Your task to perform on an android device: Empty the shopping cart on bestbuy.com. Add jbl flip 4 to the cart on bestbuy.com, then select checkout. Image 0: 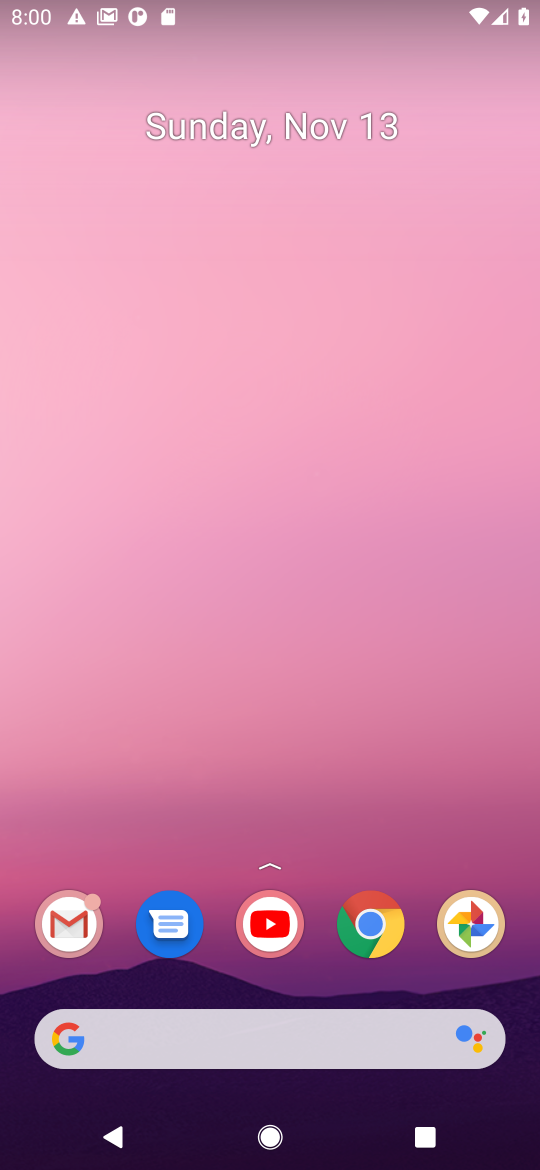
Step 0: click (368, 935)
Your task to perform on an android device: Empty the shopping cart on bestbuy.com. Add jbl flip 4 to the cart on bestbuy.com, then select checkout. Image 1: 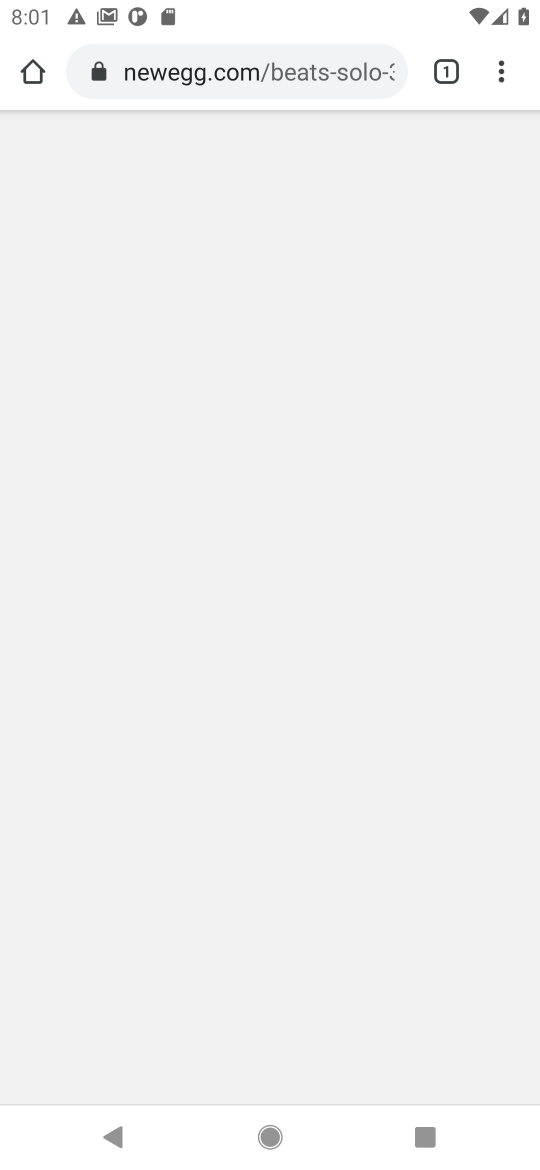
Step 1: click (272, 86)
Your task to perform on an android device: Empty the shopping cart on bestbuy.com. Add jbl flip 4 to the cart on bestbuy.com, then select checkout. Image 2: 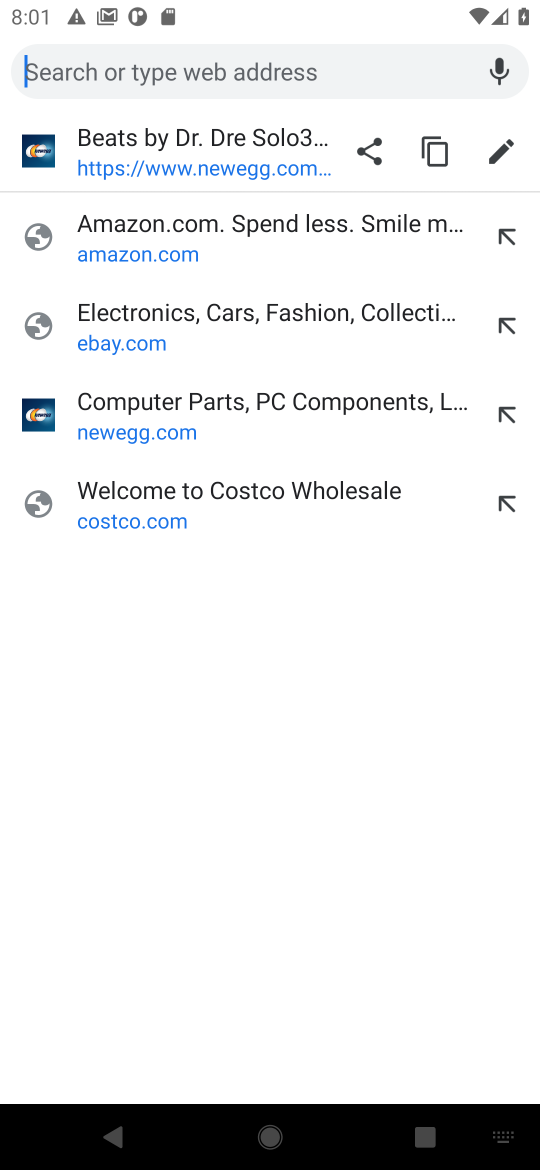
Step 2: type "bestbuy.com"
Your task to perform on an android device: Empty the shopping cart on bestbuy.com. Add jbl flip 4 to the cart on bestbuy.com, then select checkout. Image 3: 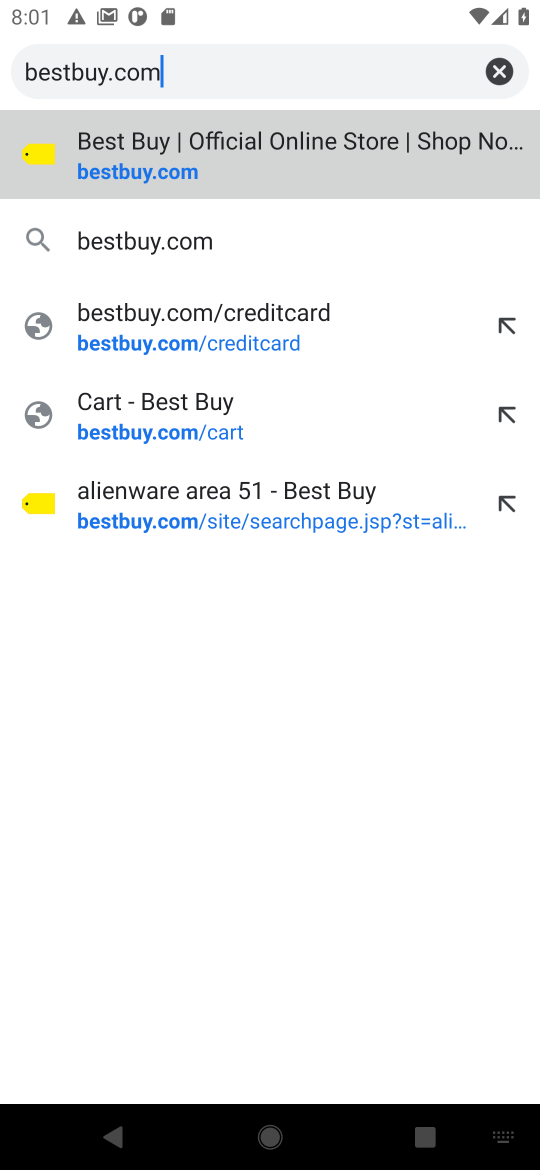
Step 3: click (119, 151)
Your task to perform on an android device: Empty the shopping cart on bestbuy.com. Add jbl flip 4 to the cart on bestbuy.com, then select checkout. Image 4: 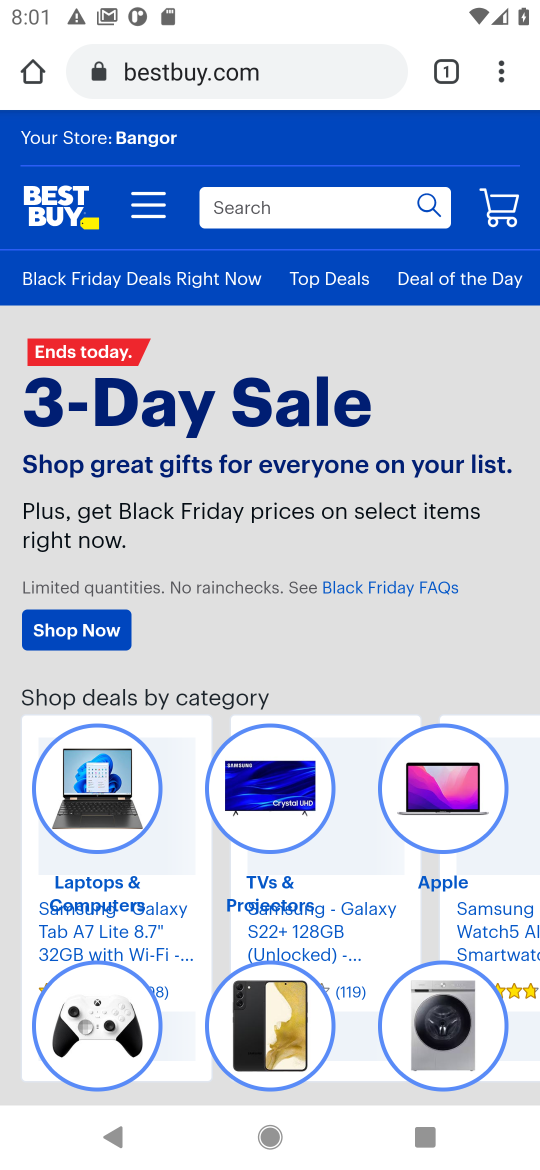
Step 4: click (524, 214)
Your task to perform on an android device: Empty the shopping cart on bestbuy.com. Add jbl flip 4 to the cart on bestbuy.com, then select checkout. Image 5: 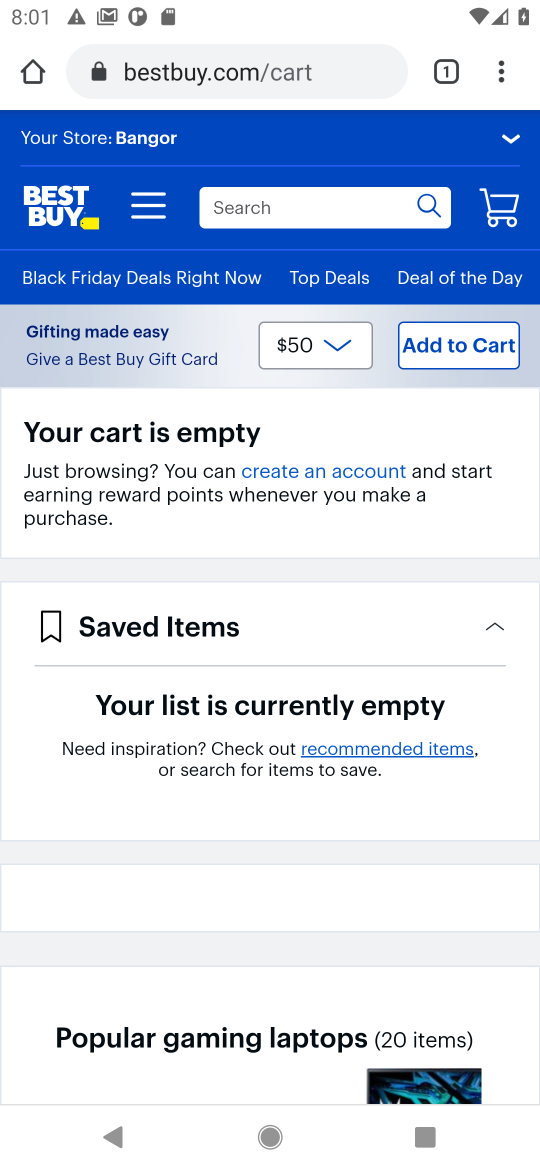
Step 5: click (249, 218)
Your task to perform on an android device: Empty the shopping cart on bestbuy.com. Add jbl flip 4 to the cart on bestbuy.com, then select checkout. Image 6: 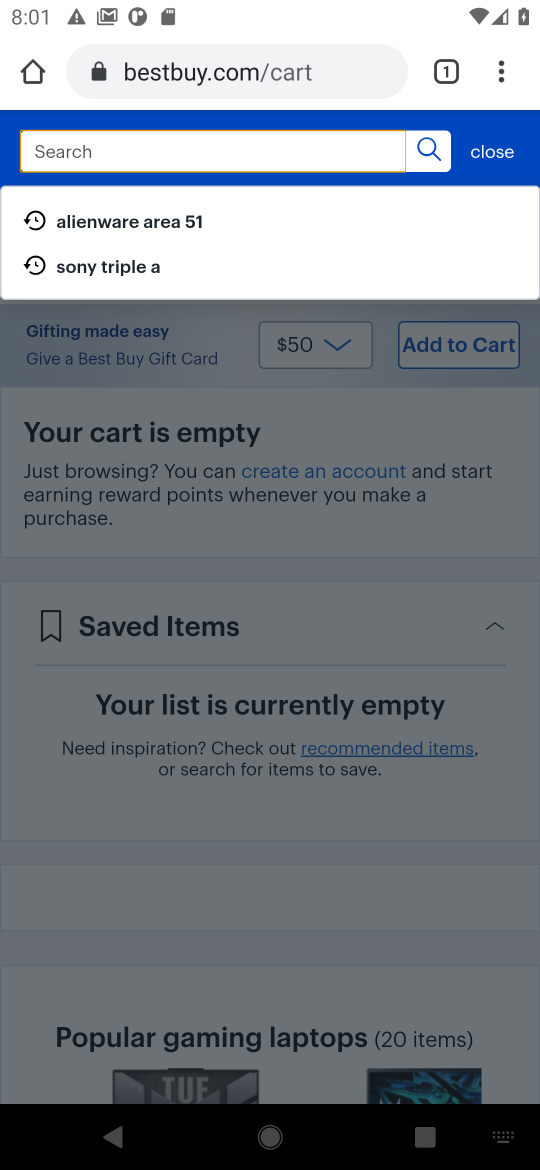
Step 6: type "jbl flip 4"
Your task to perform on an android device: Empty the shopping cart on bestbuy.com. Add jbl flip 4 to the cart on bestbuy.com, then select checkout. Image 7: 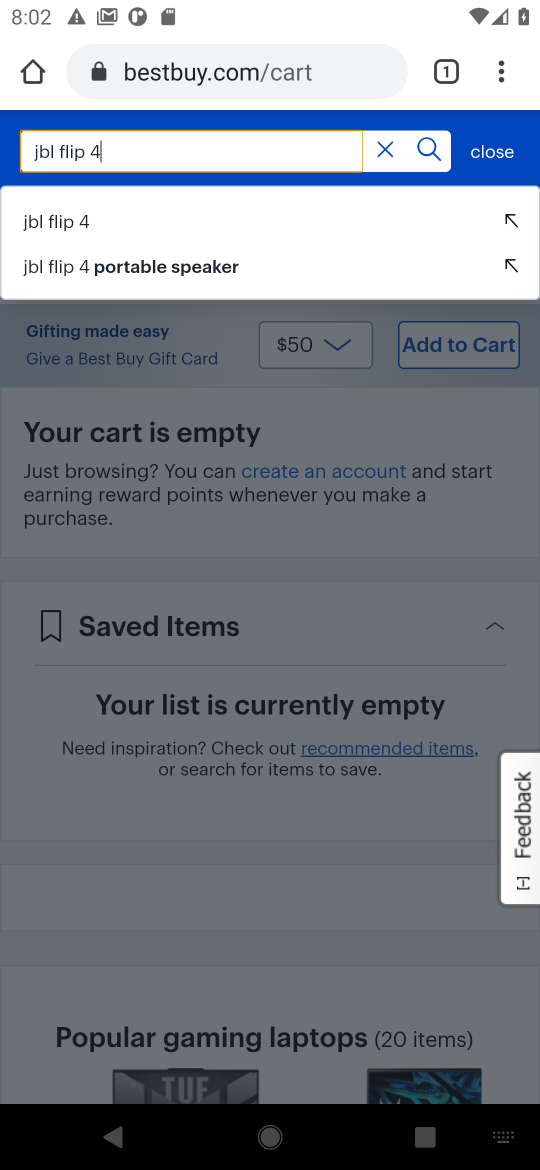
Step 7: click (63, 232)
Your task to perform on an android device: Empty the shopping cart on bestbuy.com. Add jbl flip 4 to the cart on bestbuy.com, then select checkout. Image 8: 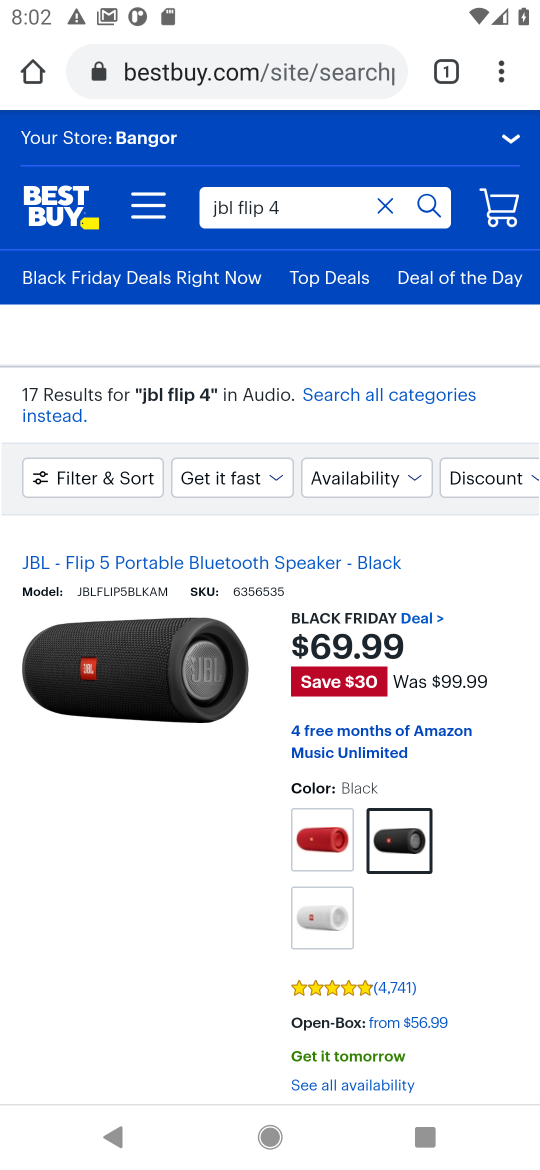
Step 8: task complete